Your task to perform on an android device: open chrome privacy settings Image 0: 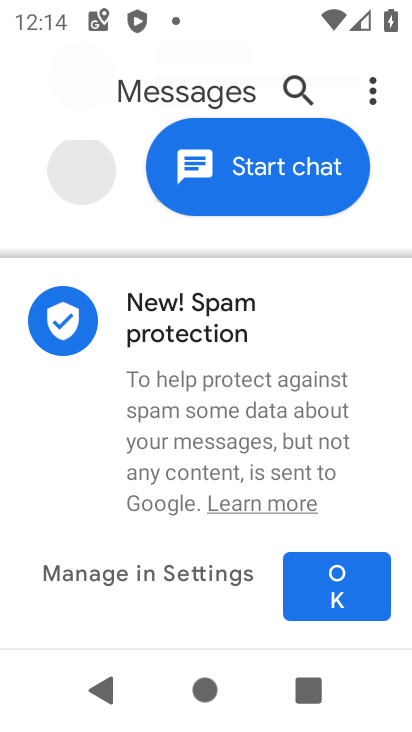
Step 0: press home button
Your task to perform on an android device: open chrome privacy settings Image 1: 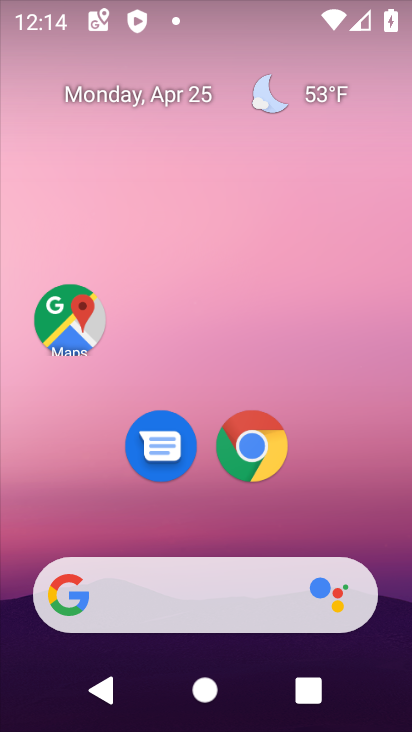
Step 1: drag from (216, 543) to (299, 17)
Your task to perform on an android device: open chrome privacy settings Image 2: 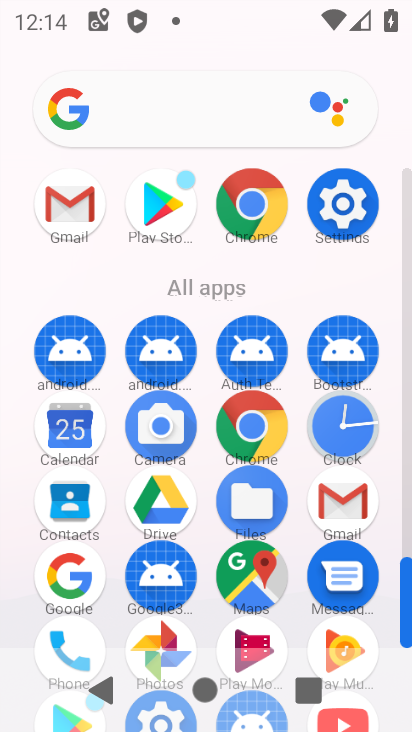
Step 2: click (347, 208)
Your task to perform on an android device: open chrome privacy settings Image 3: 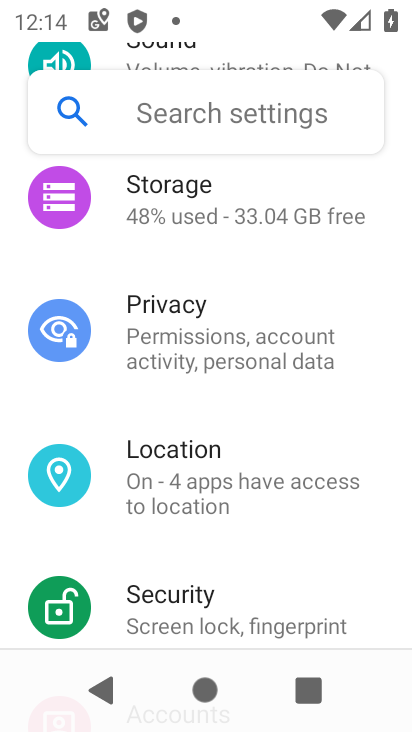
Step 3: click (219, 351)
Your task to perform on an android device: open chrome privacy settings Image 4: 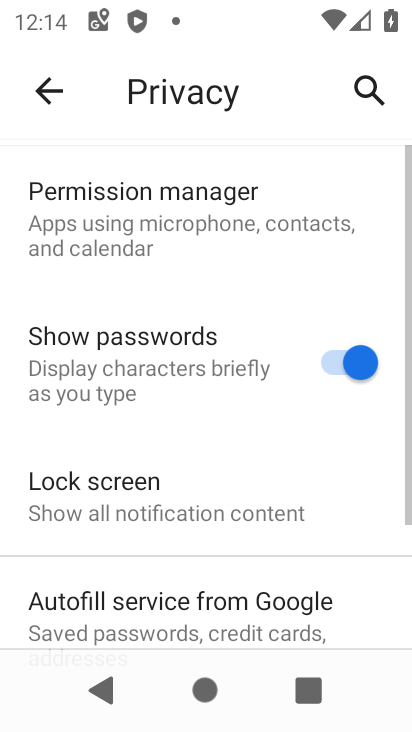
Step 4: task complete